Your task to perform on an android device: uninstall "Google Find My Device" Image 0: 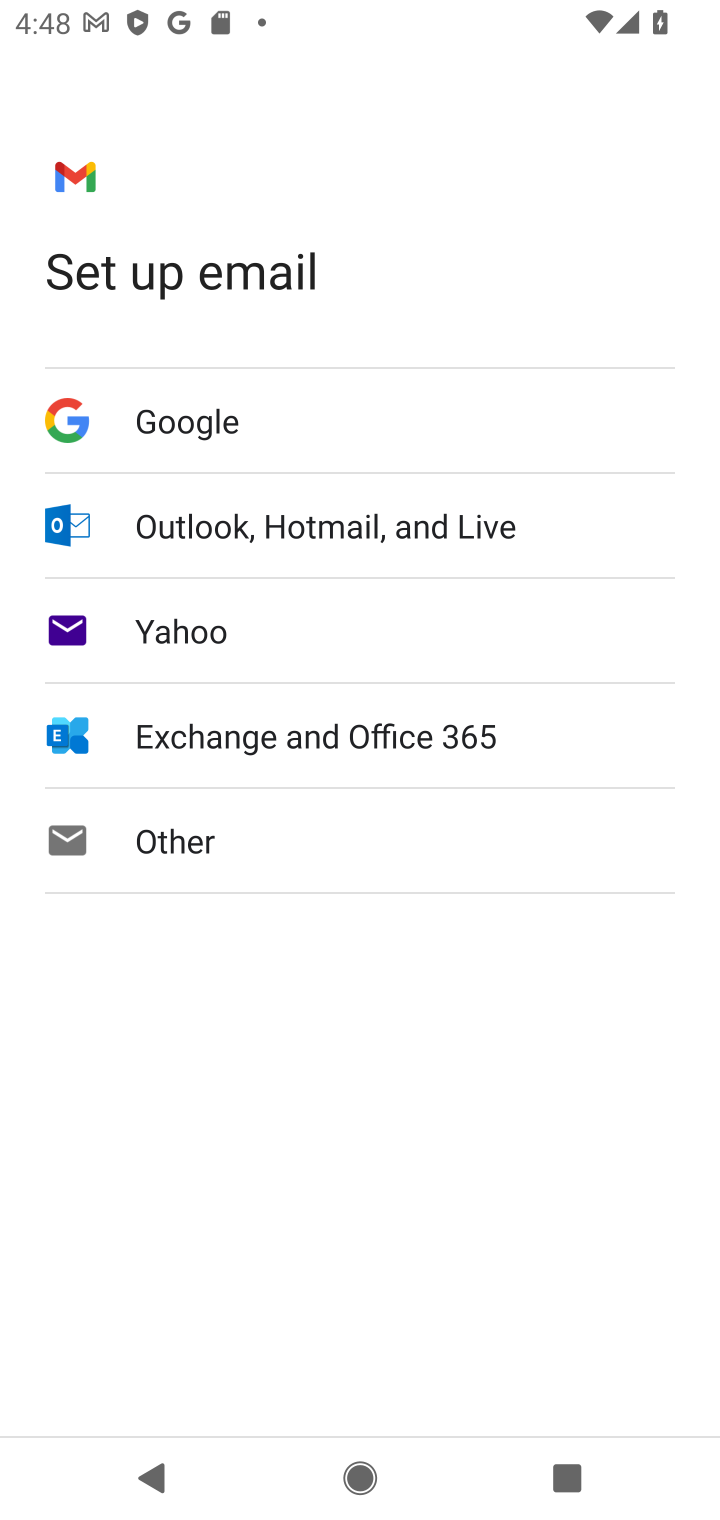
Step 0: press home button
Your task to perform on an android device: uninstall "Google Find My Device" Image 1: 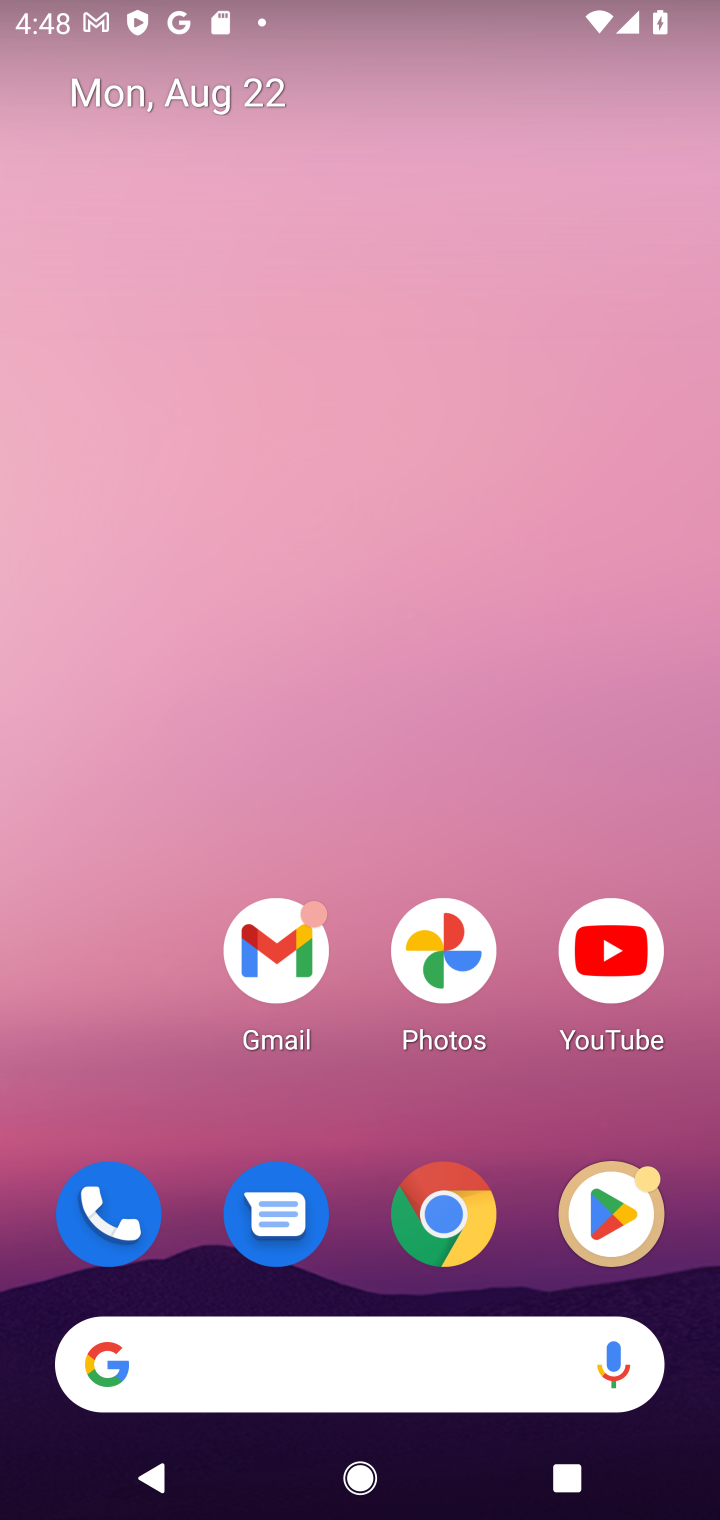
Step 1: click (617, 1212)
Your task to perform on an android device: uninstall "Google Find My Device" Image 2: 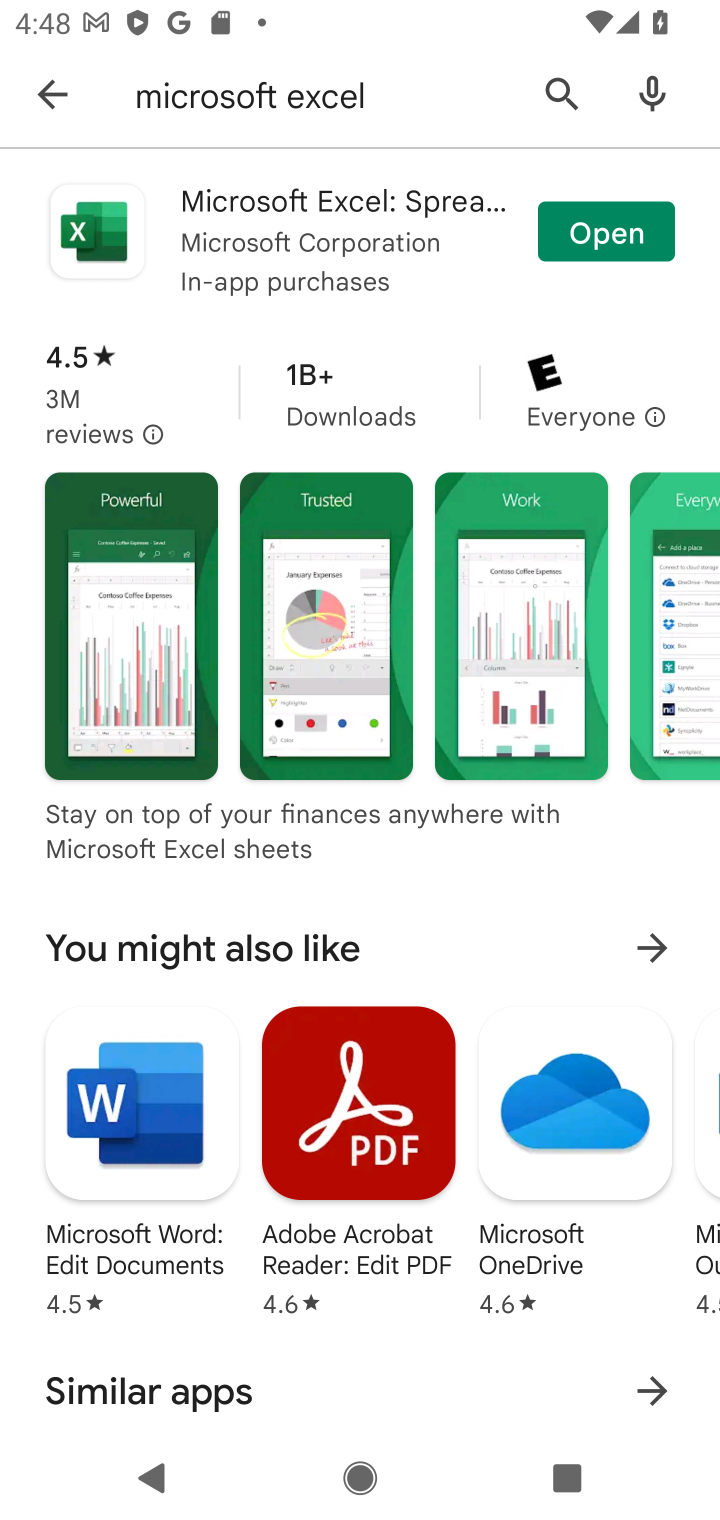
Step 2: click (555, 90)
Your task to perform on an android device: uninstall "Google Find My Device" Image 3: 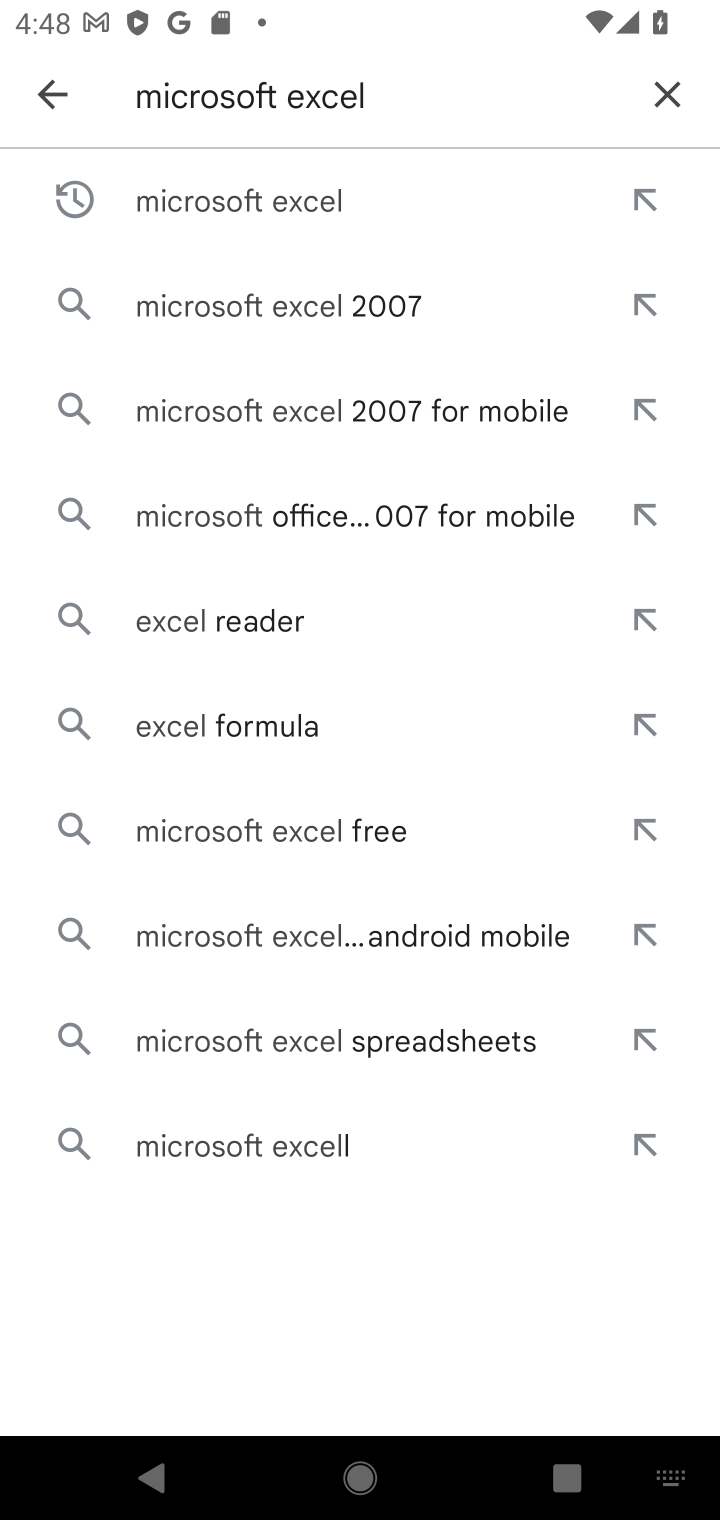
Step 3: click (658, 96)
Your task to perform on an android device: uninstall "Google Find My Device" Image 4: 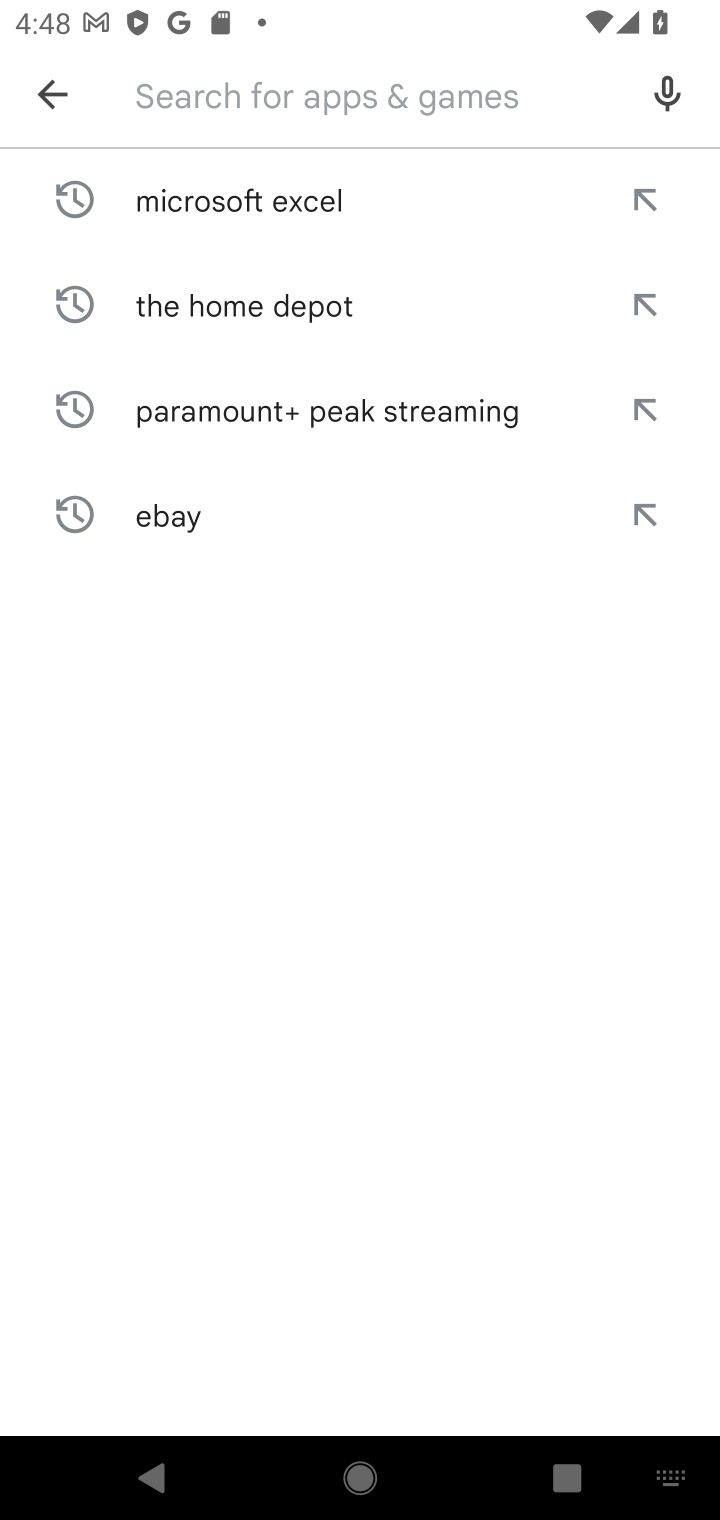
Step 4: type "google find my device"
Your task to perform on an android device: uninstall "Google Find My Device" Image 5: 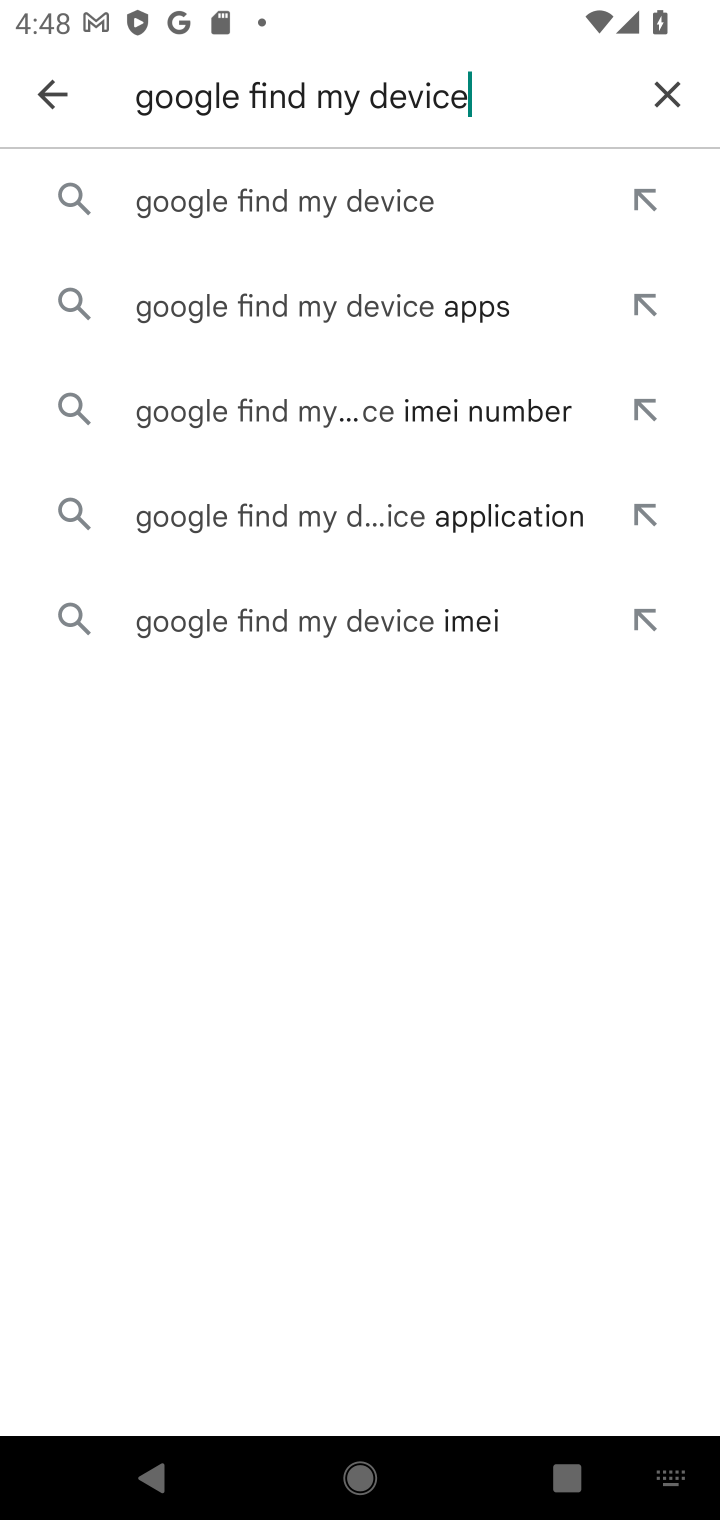
Step 5: click (270, 197)
Your task to perform on an android device: uninstall "Google Find My Device" Image 6: 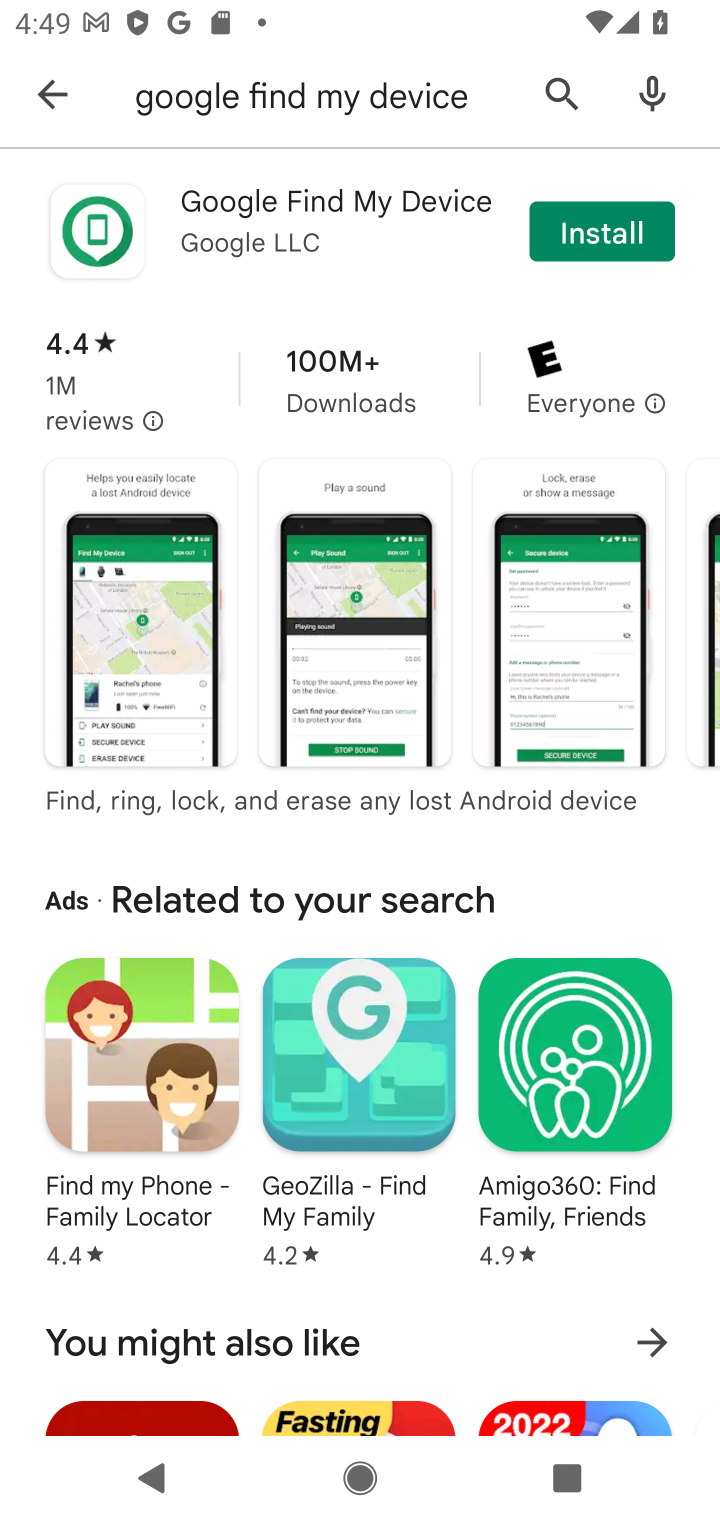
Step 6: task complete